Your task to perform on an android device: Empty the shopping cart on amazon.com. Add bose soundlink mini to the cart on amazon.com Image 0: 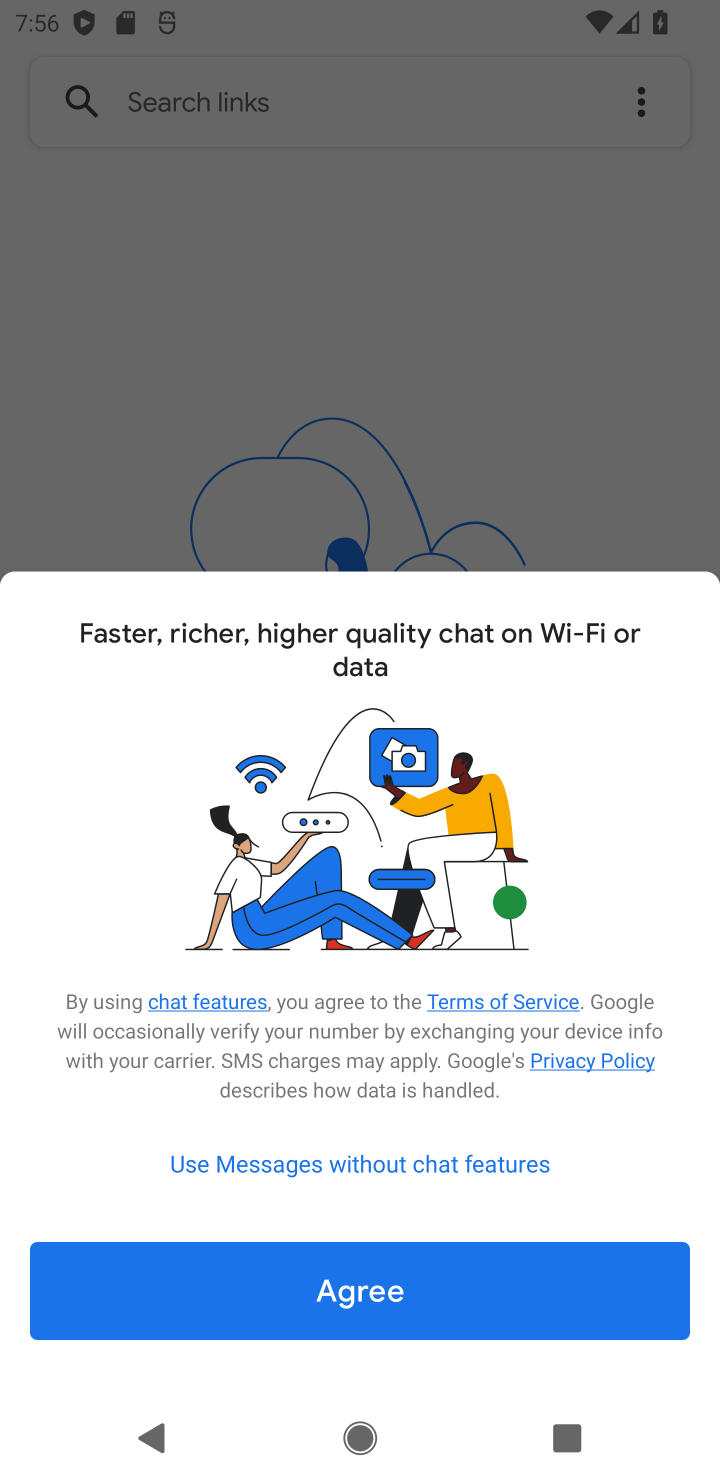
Step 0: press home button
Your task to perform on an android device: Empty the shopping cart on amazon.com. Add bose soundlink mini to the cart on amazon.com Image 1: 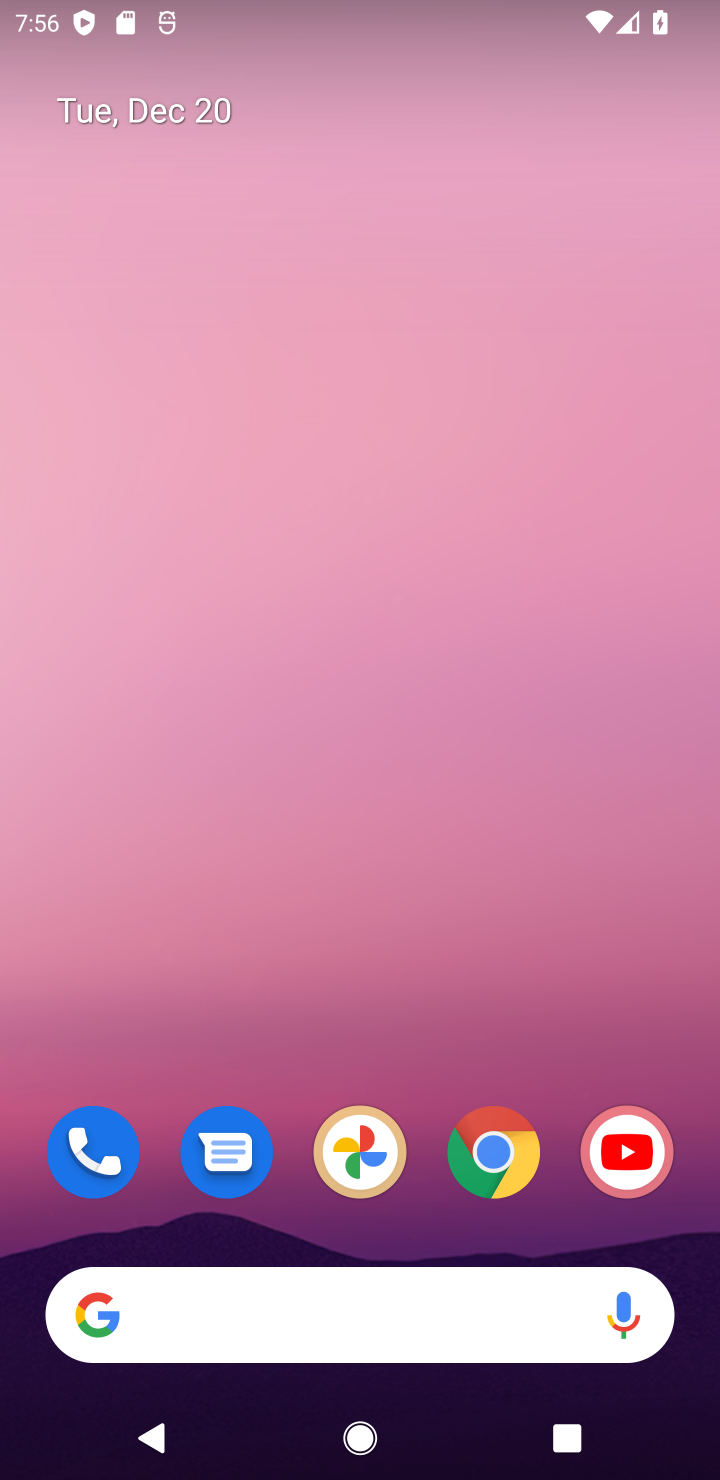
Step 1: click (491, 1142)
Your task to perform on an android device: Empty the shopping cart on amazon.com. Add bose soundlink mini to the cart on amazon.com Image 2: 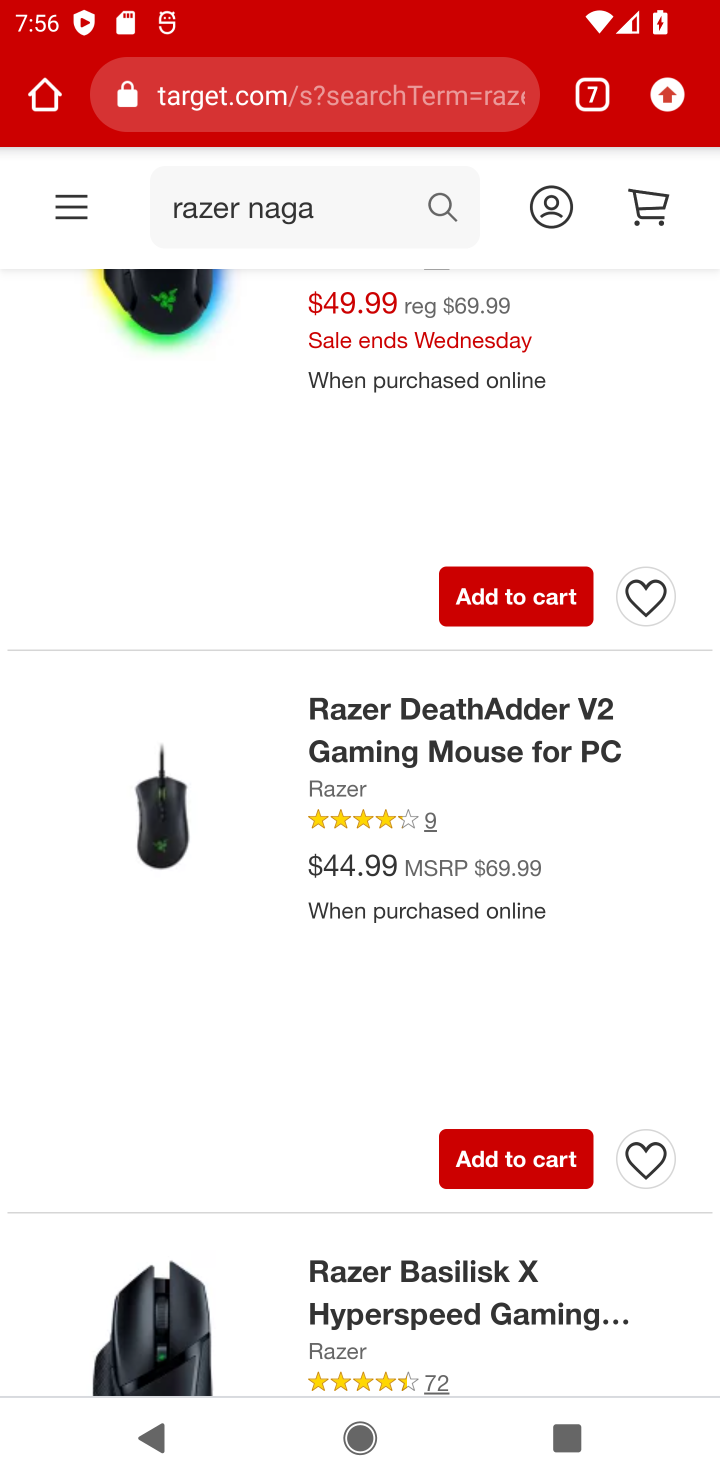
Step 2: click (588, 92)
Your task to perform on an android device: Empty the shopping cart on amazon.com. Add bose soundlink mini to the cart on amazon.com Image 3: 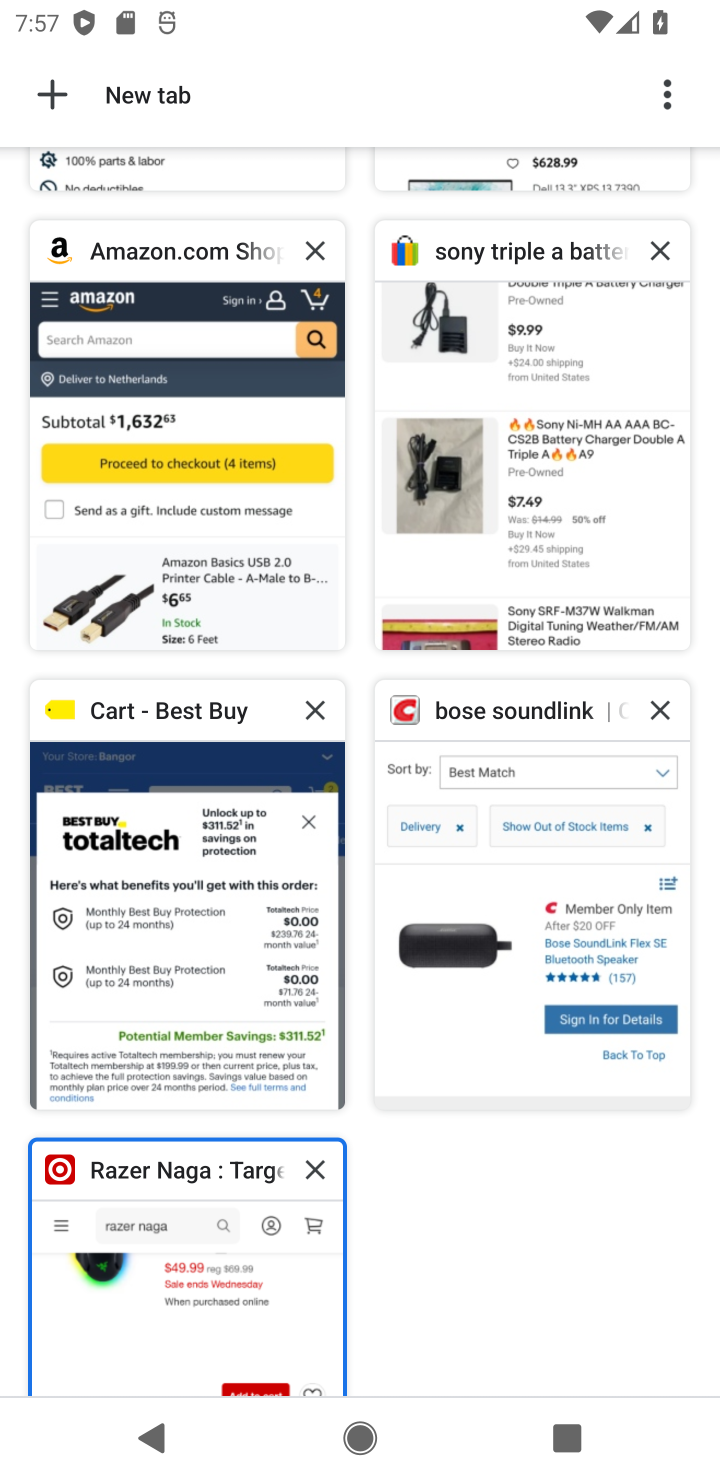
Step 3: click (150, 449)
Your task to perform on an android device: Empty the shopping cart on amazon.com. Add bose soundlink mini to the cart on amazon.com Image 4: 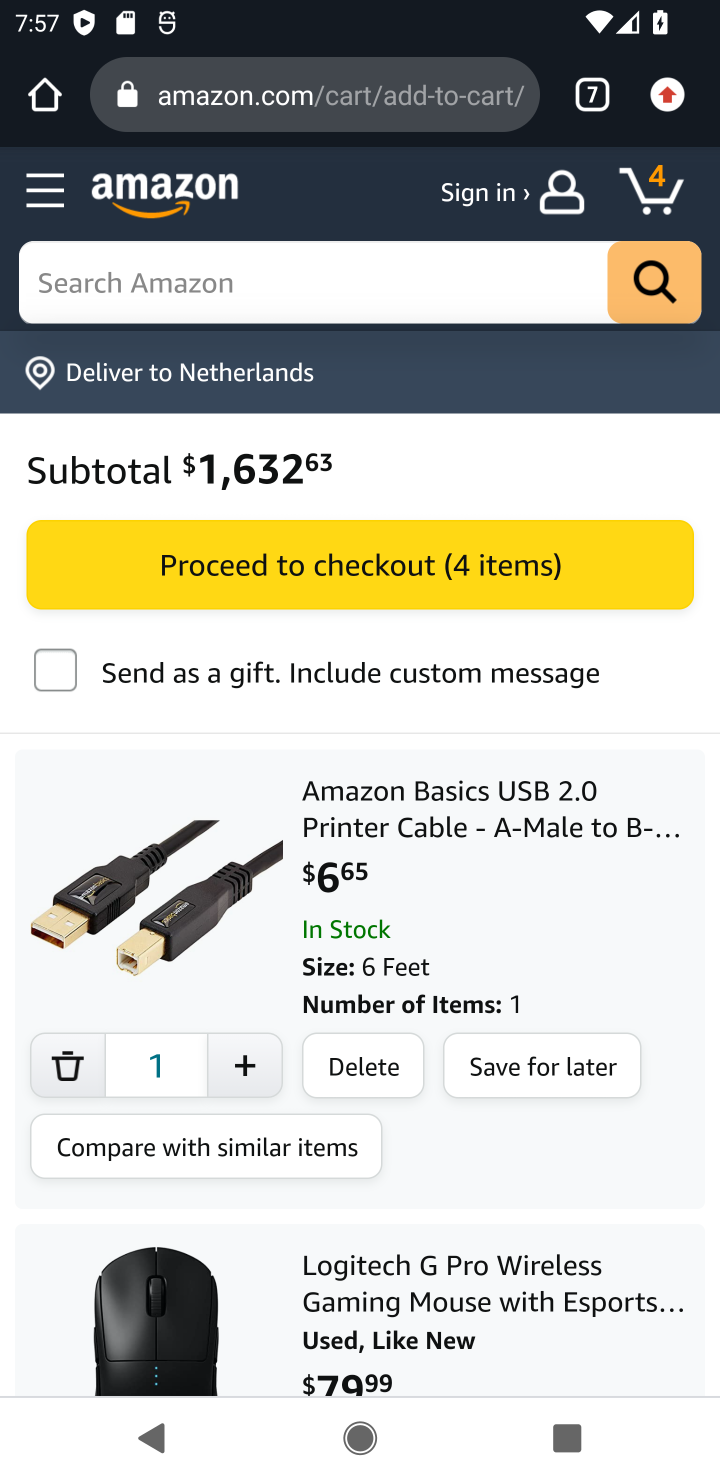
Step 4: click (343, 1047)
Your task to perform on an android device: Empty the shopping cart on amazon.com. Add bose soundlink mini to the cart on amazon.com Image 5: 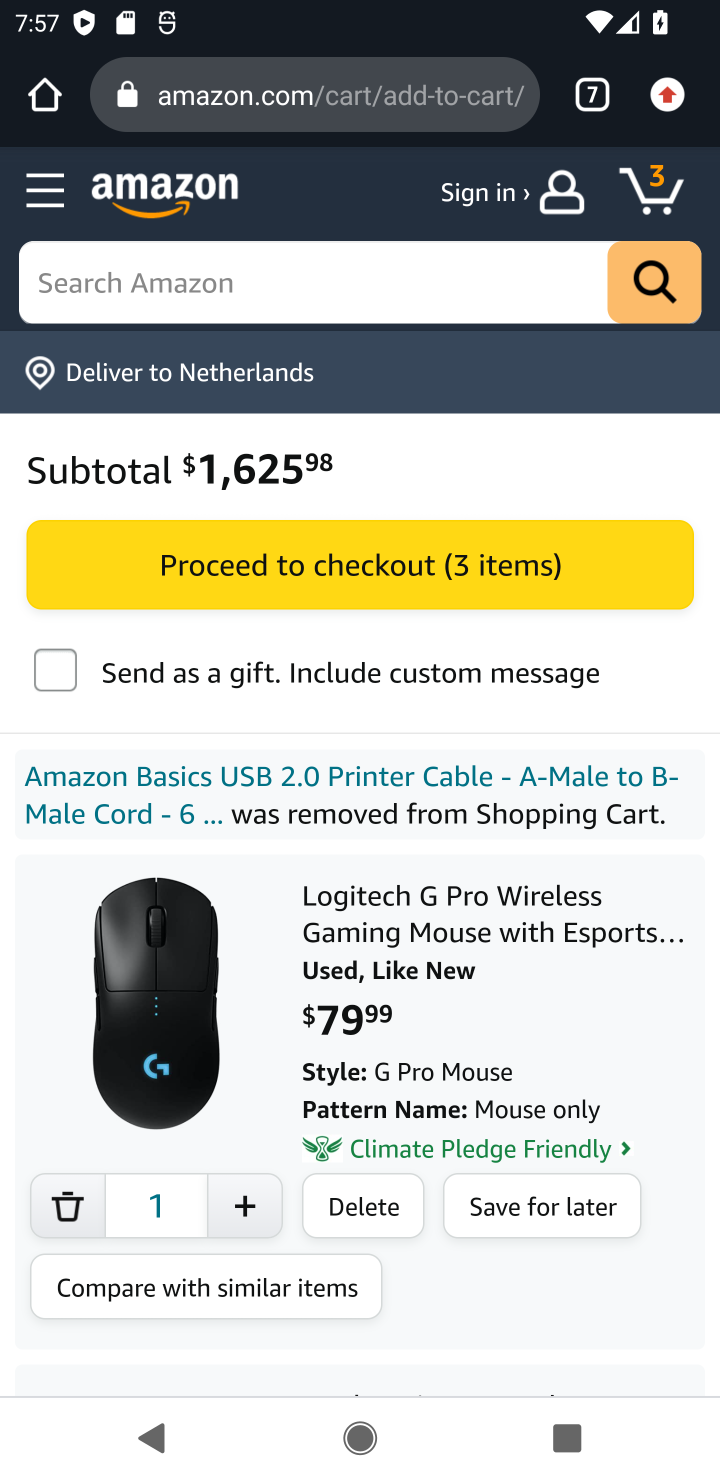
Step 5: click (372, 1205)
Your task to perform on an android device: Empty the shopping cart on amazon.com. Add bose soundlink mini to the cart on amazon.com Image 6: 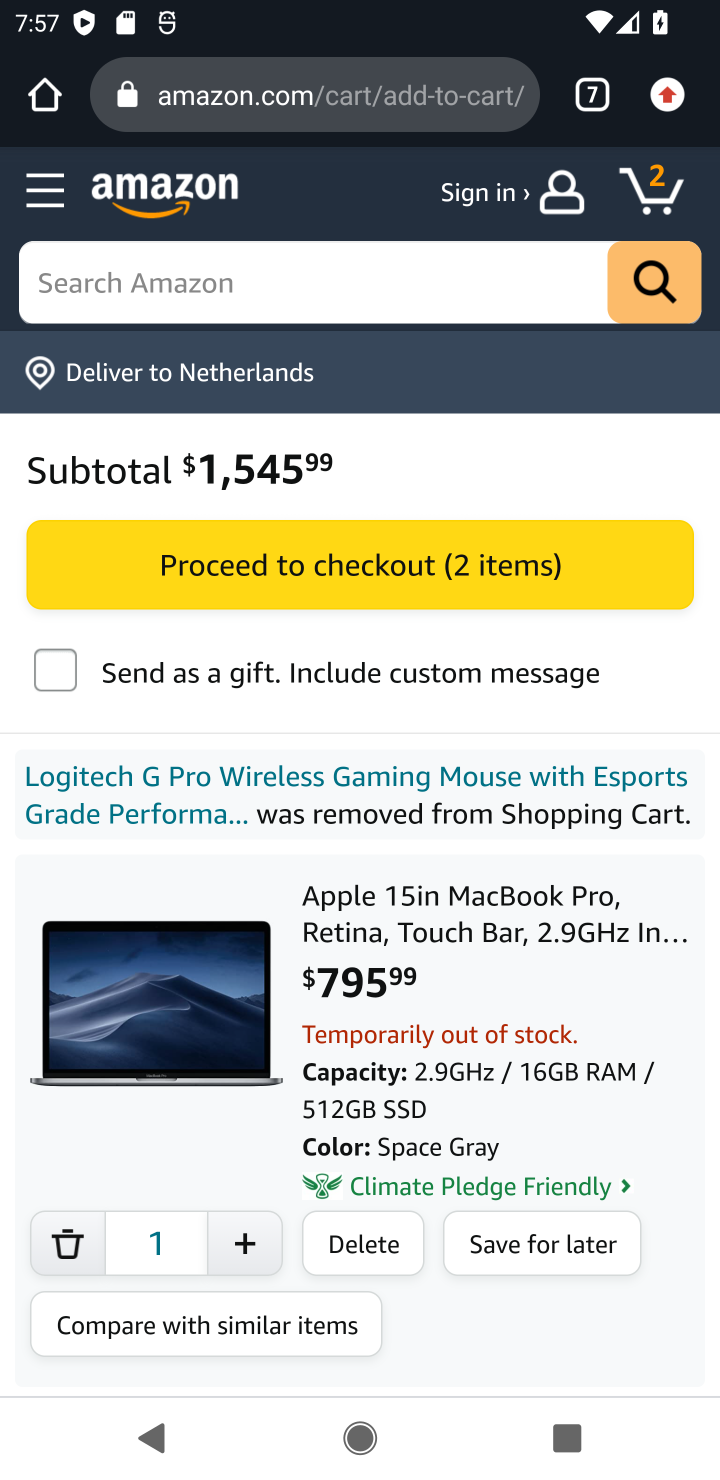
Step 6: click (371, 1224)
Your task to perform on an android device: Empty the shopping cart on amazon.com. Add bose soundlink mini to the cart on amazon.com Image 7: 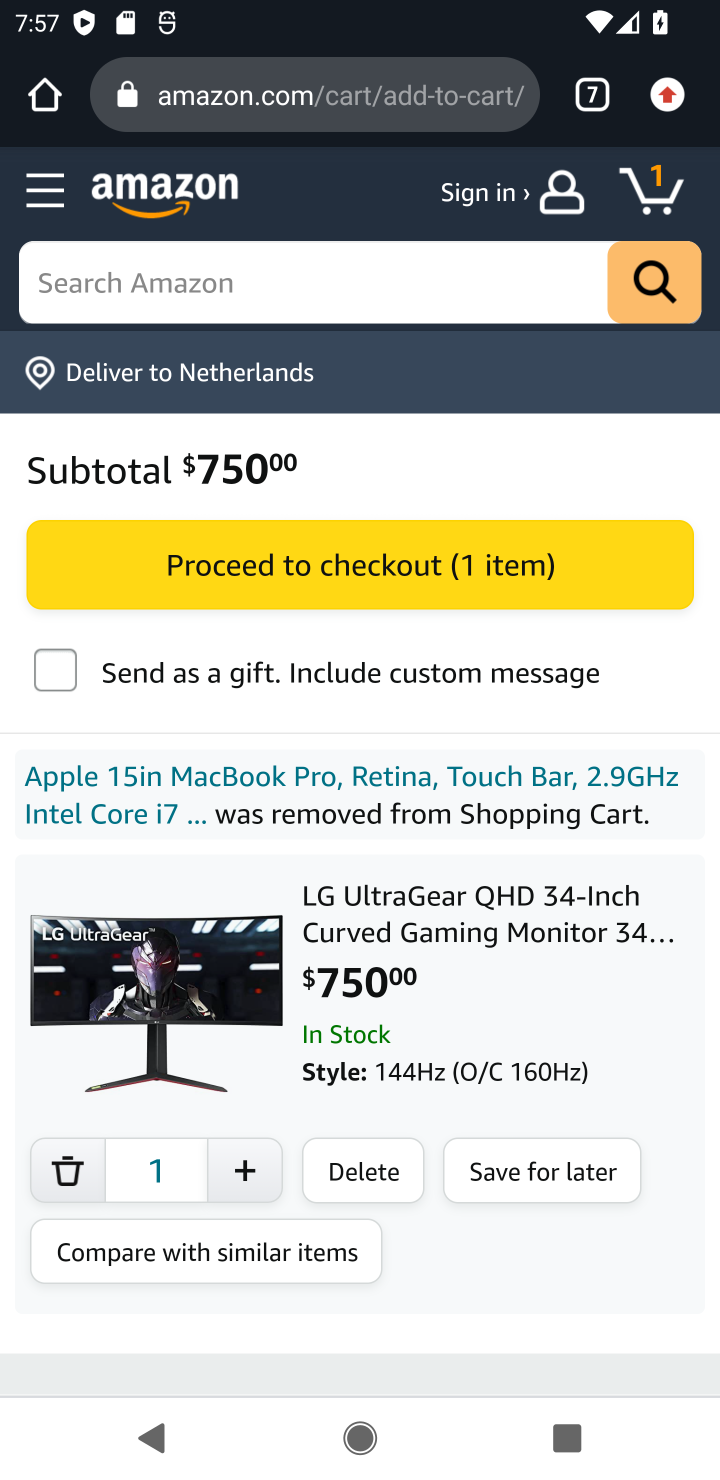
Step 7: click (376, 1168)
Your task to perform on an android device: Empty the shopping cart on amazon.com. Add bose soundlink mini to the cart on amazon.com Image 8: 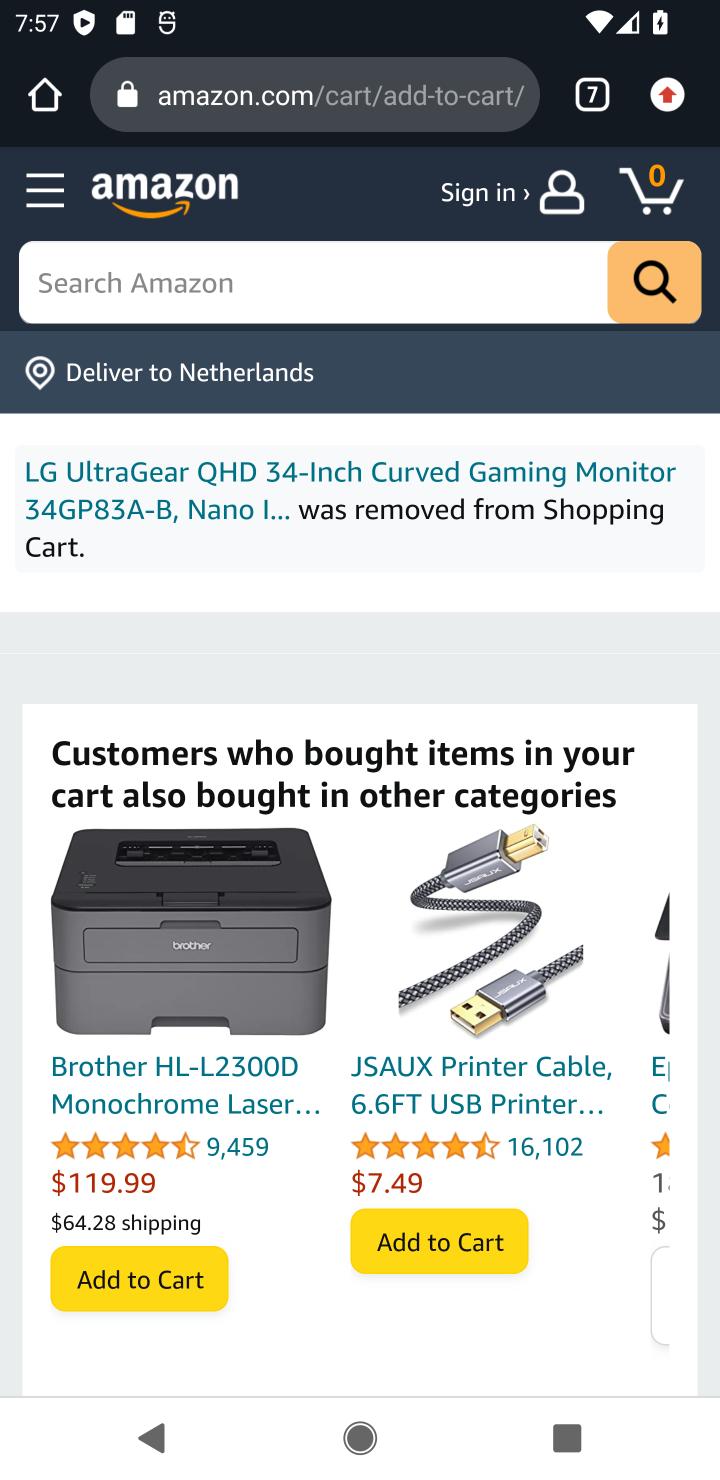
Step 8: click (360, 285)
Your task to perform on an android device: Empty the shopping cart on amazon.com. Add bose soundlink mini to the cart on amazon.com Image 9: 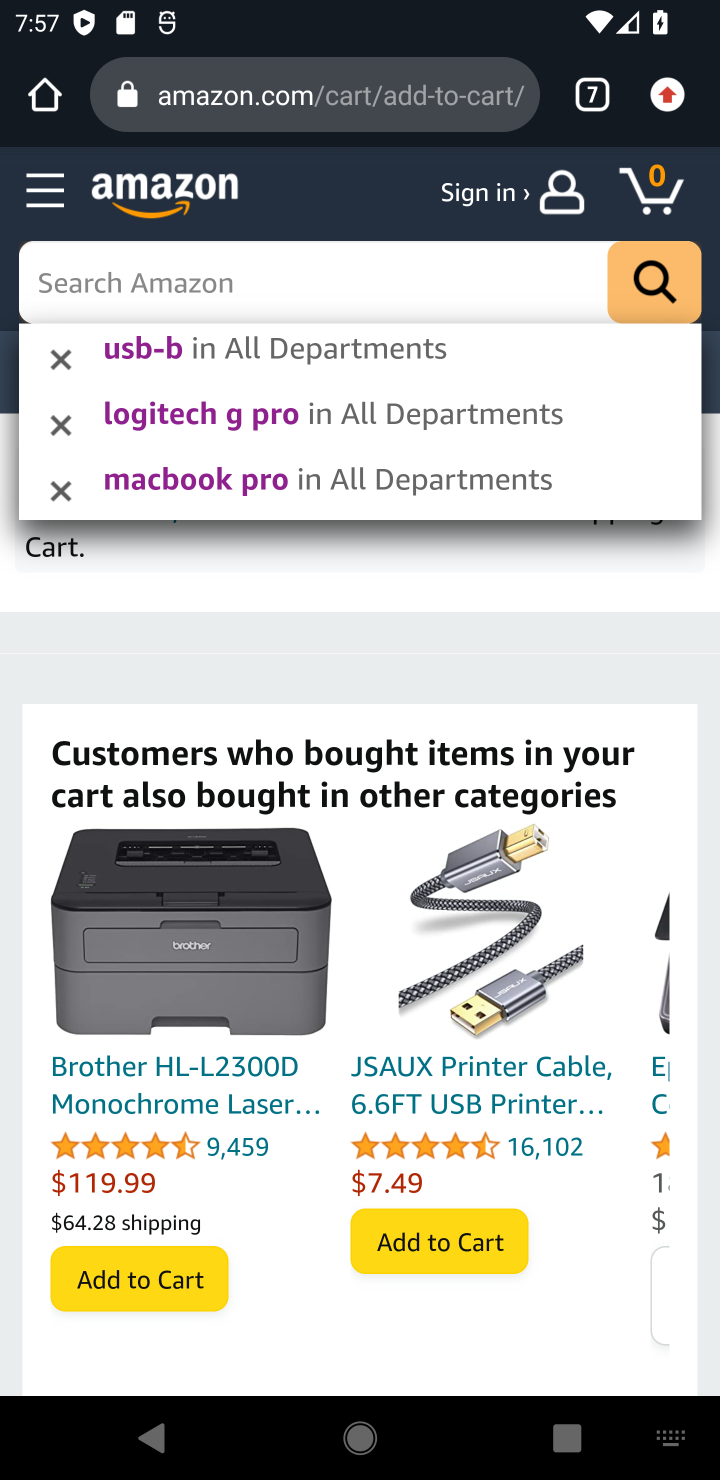
Step 9: type "bose soundlink mini "
Your task to perform on an android device: Empty the shopping cart on amazon.com. Add bose soundlink mini to the cart on amazon.com Image 10: 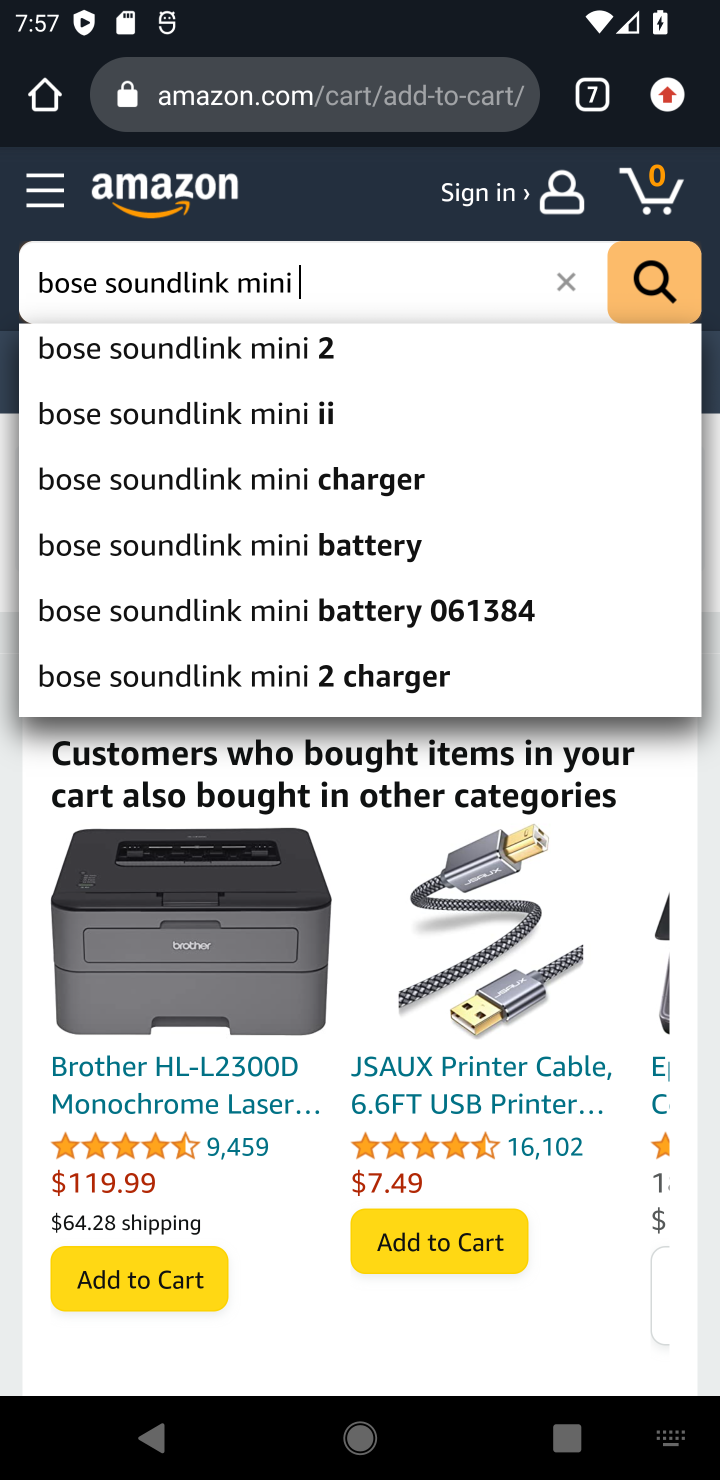
Step 10: click (643, 286)
Your task to perform on an android device: Empty the shopping cart on amazon.com. Add bose soundlink mini to the cart on amazon.com Image 11: 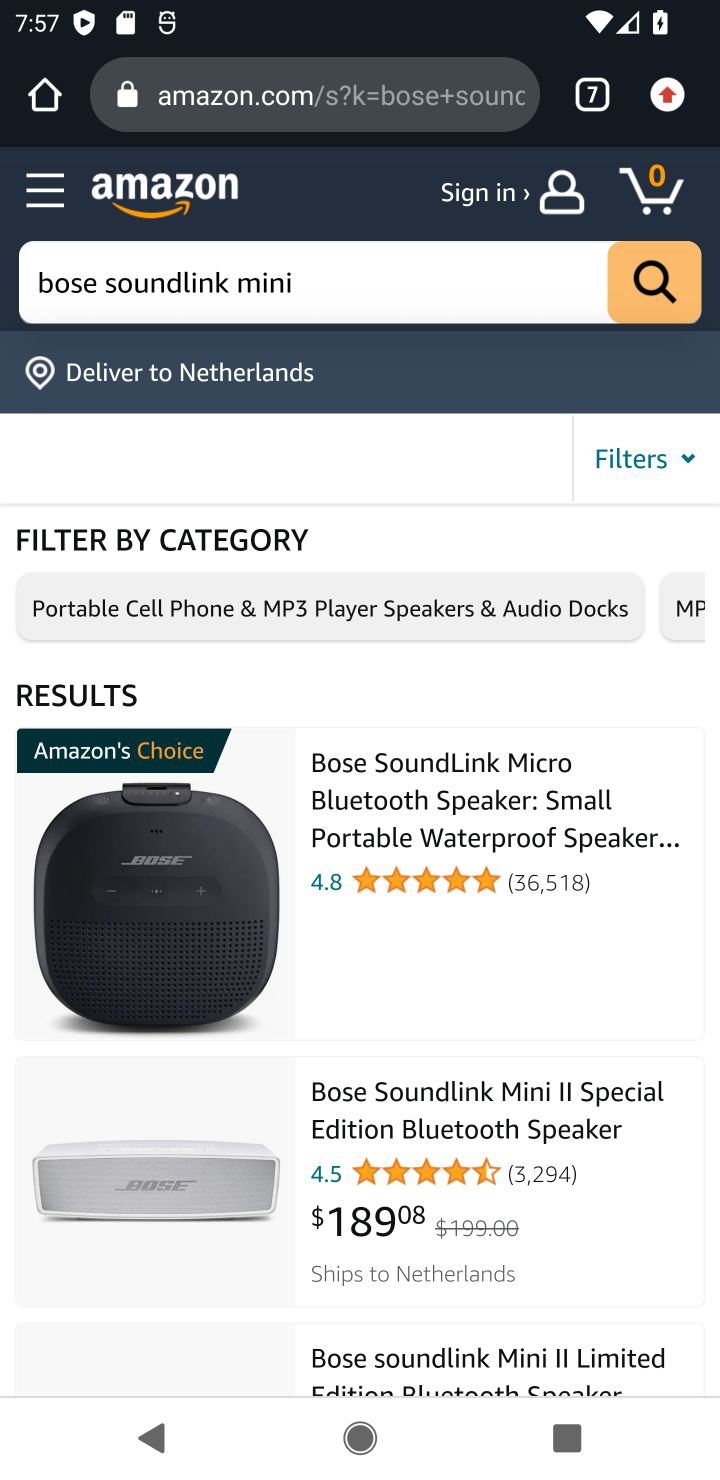
Step 11: click (404, 1096)
Your task to perform on an android device: Empty the shopping cart on amazon.com. Add bose soundlink mini to the cart on amazon.com Image 12: 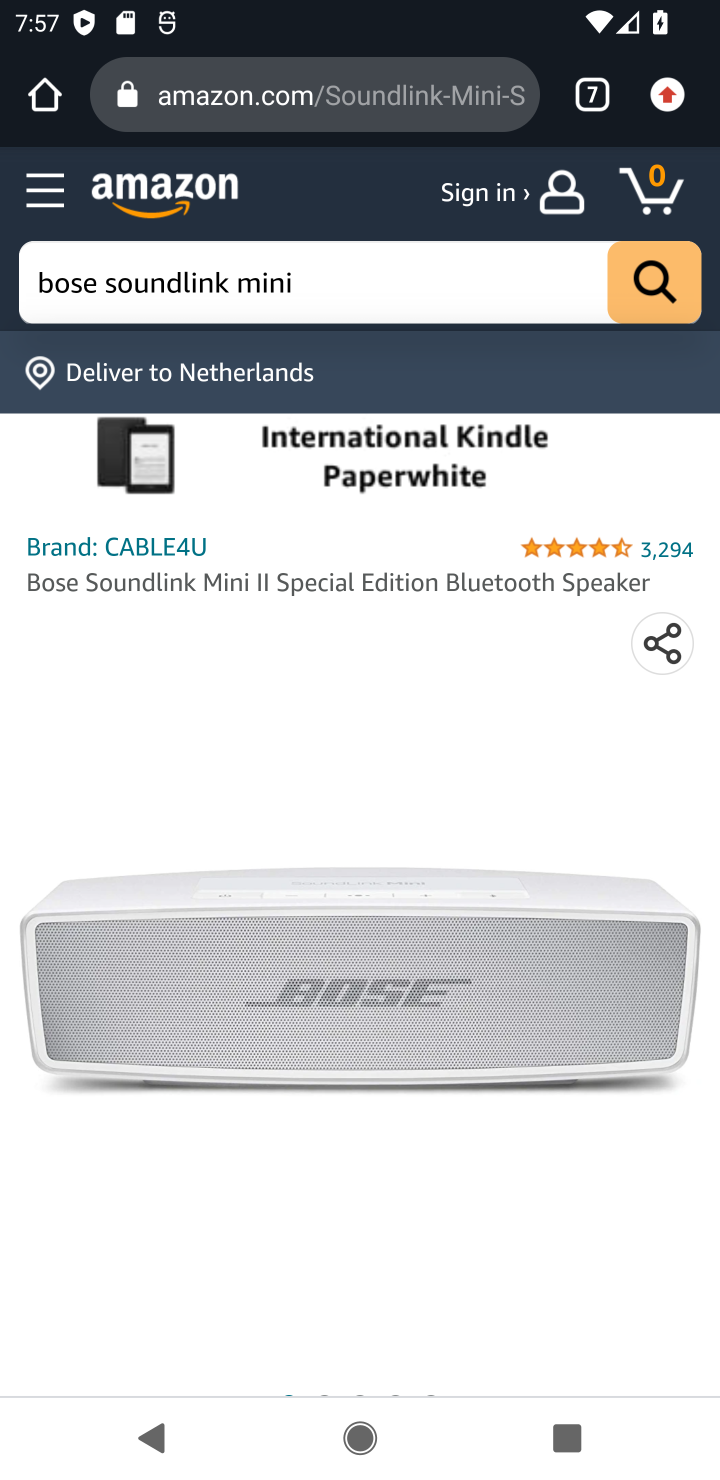
Step 12: drag from (374, 1337) to (510, 467)
Your task to perform on an android device: Empty the shopping cart on amazon.com. Add bose soundlink mini to the cart on amazon.com Image 13: 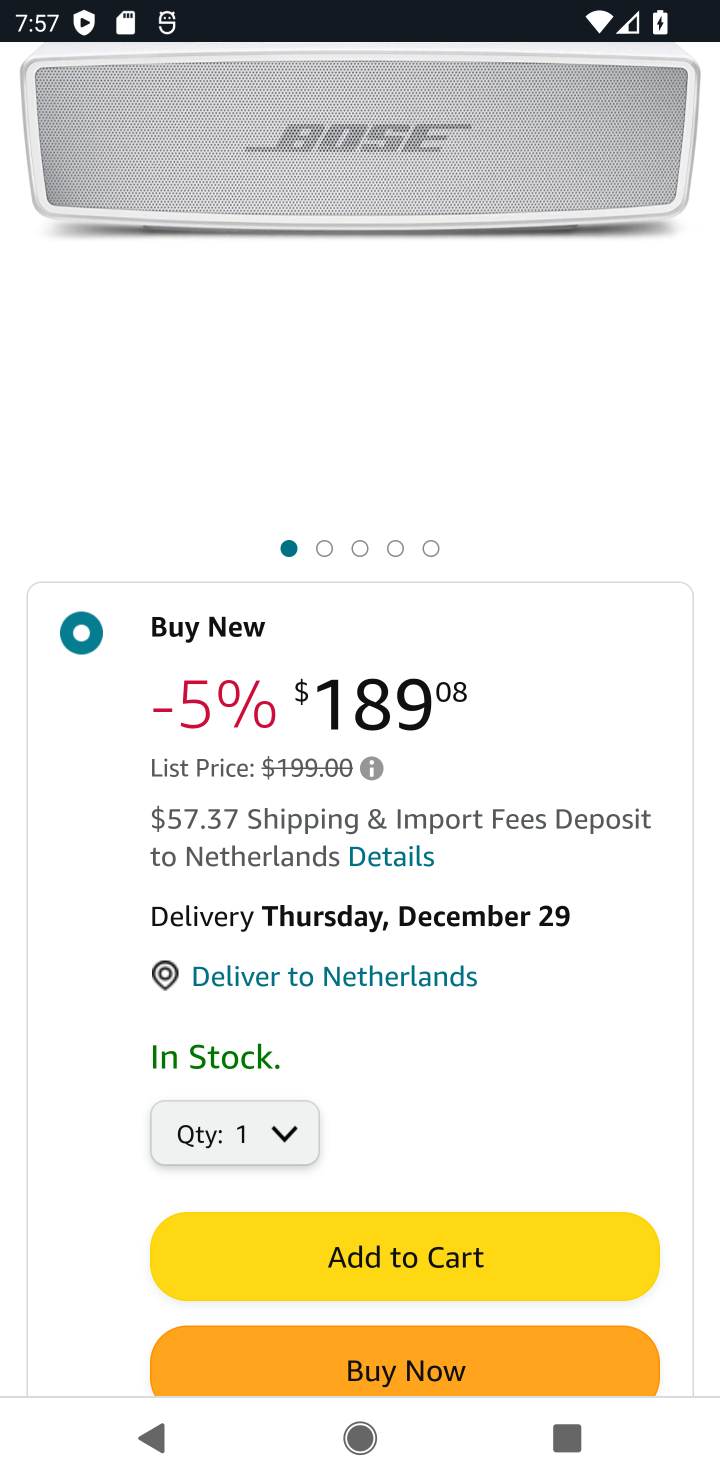
Step 13: click (368, 1263)
Your task to perform on an android device: Empty the shopping cart on amazon.com. Add bose soundlink mini to the cart on amazon.com Image 14: 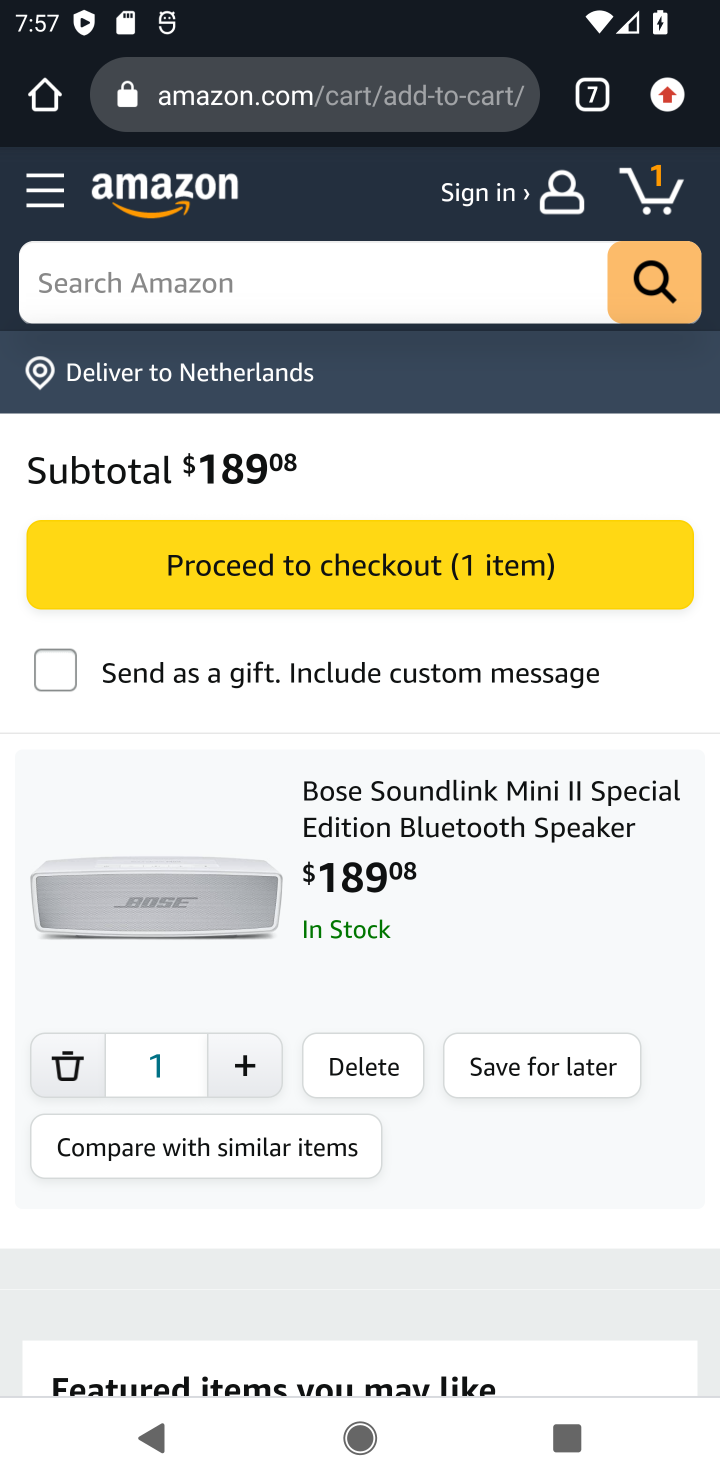
Step 14: task complete